Your task to perform on an android device: stop showing notifications on the lock screen Image 0: 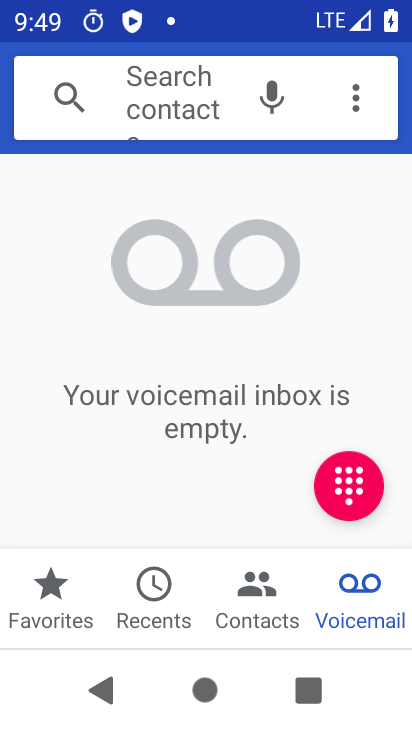
Step 0: press home button
Your task to perform on an android device: stop showing notifications on the lock screen Image 1: 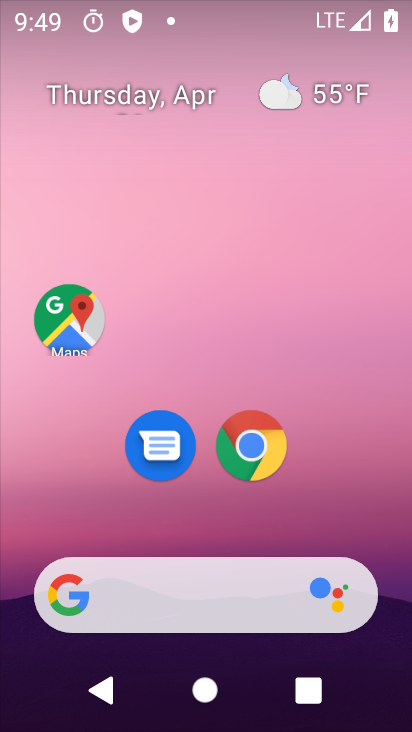
Step 1: drag from (380, 536) to (373, 35)
Your task to perform on an android device: stop showing notifications on the lock screen Image 2: 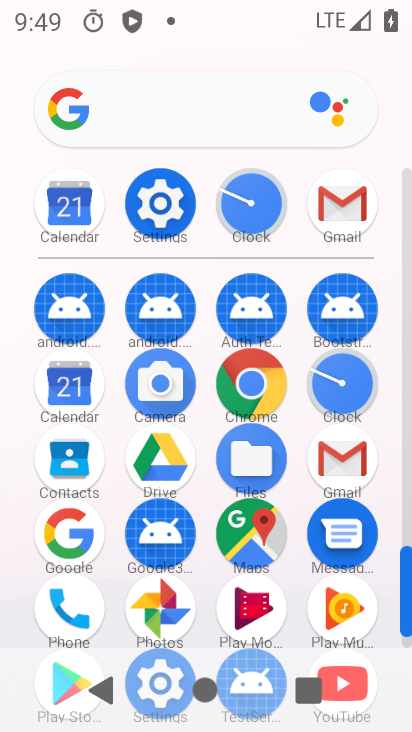
Step 2: click (159, 210)
Your task to perform on an android device: stop showing notifications on the lock screen Image 3: 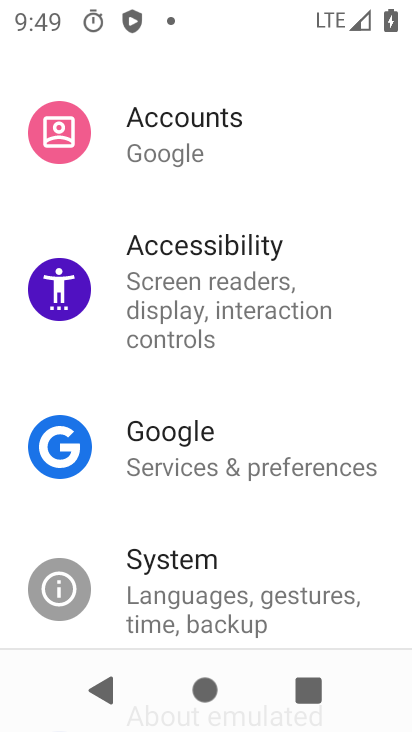
Step 3: drag from (334, 171) to (357, 554)
Your task to perform on an android device: stop showing notifications on the lock screen Image 4: 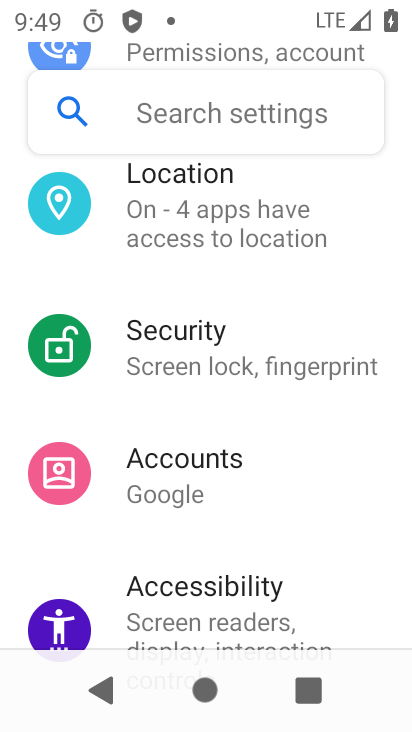
Step 4: drag from (349, 308) to (356, 585)
Your task to perform on an android device: stop showing notifications on the lock screen Image 5: 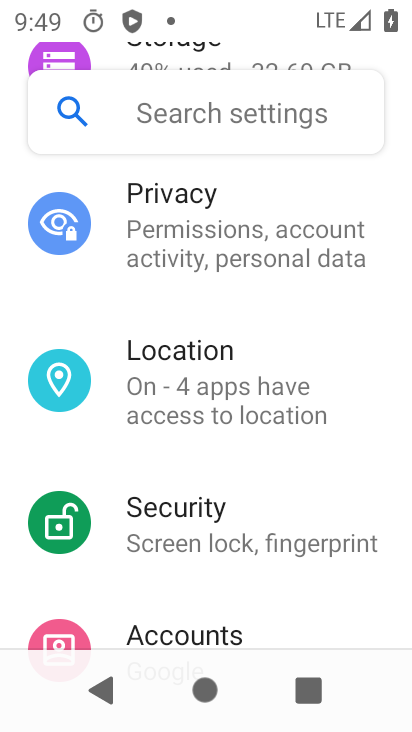
Step 5: drag from (328, 297) to (329, 567)
Your task to perform on an android device: stop showing notifications on the lock screen Image 6: 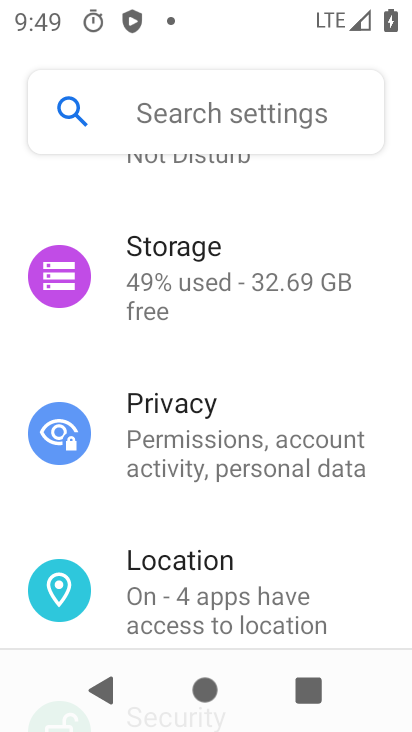
Step 6: drag from (292, 357) to (306, 571)
Your task to perform on an android device: stop showing notifications on the lock screen Image 7: 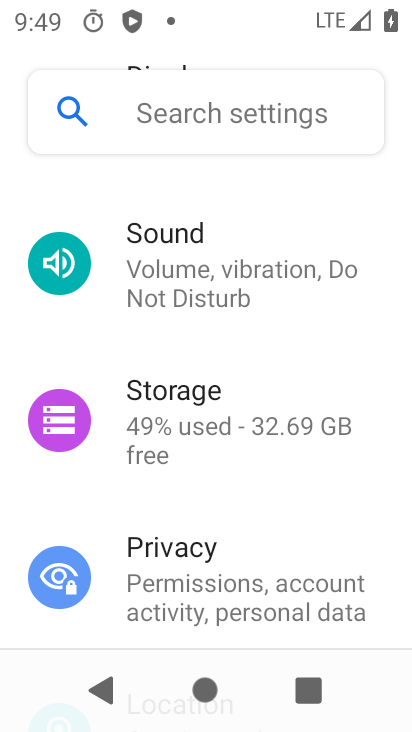
Step 7: drag from (323, 349) to (328, 568)
Your task to perform on an android device: stop showing notifications on the lock screen Image 8: 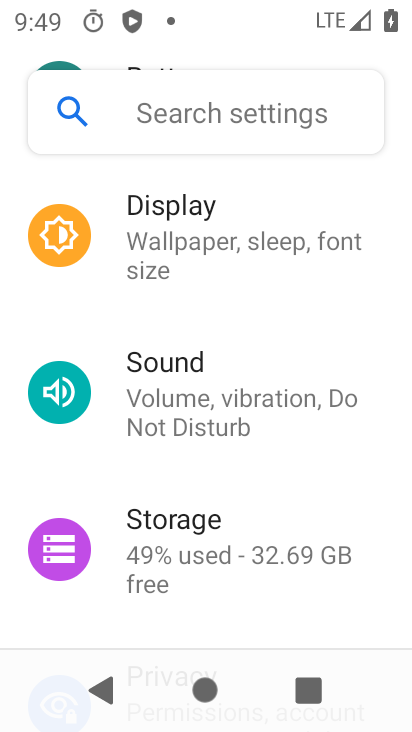
Step 8: drag from (297, 302) to (303, 573)
Your task to perform on an android device: stop showing notifications on the lock screen Image 9: 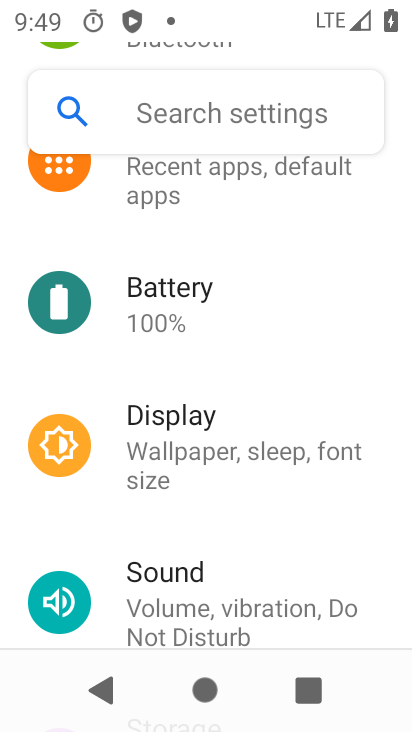
Step 9: drag from (295, 286) to (305, 582)
Your task to perform on an android device: stop showing notifications on the lock screen Image 10: 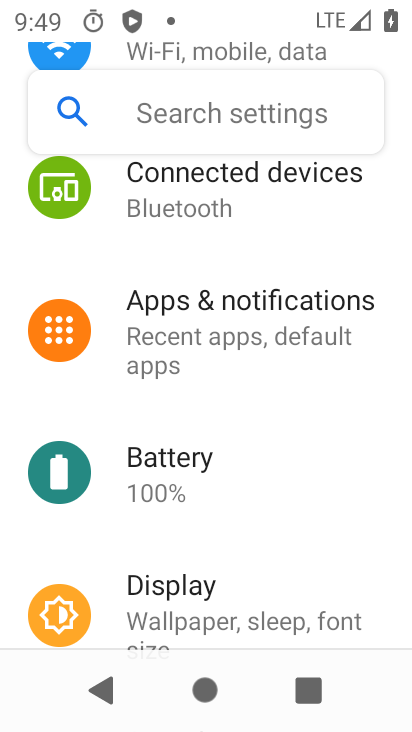
Step 10: click (232, 335)
Your task to perform on an android device: stop showing notifications on the lock screen Image 11: 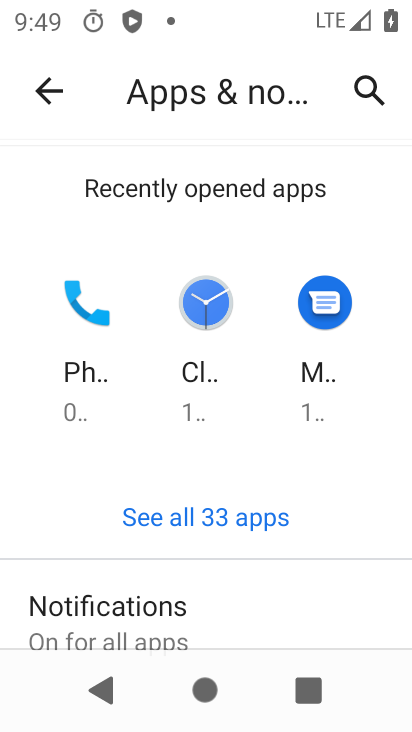
Step 11: drag from (308, 590) to (319, 285)
Your task to perform on an android device: stop showing notifications on the lock screen Image 12: 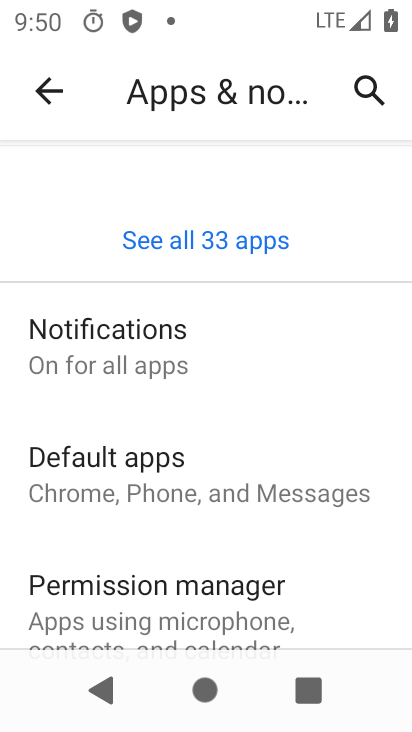
Step 12: click (100, 355)
Your task to perform on an android device: stop showing notifications on the lock screen Image 13: 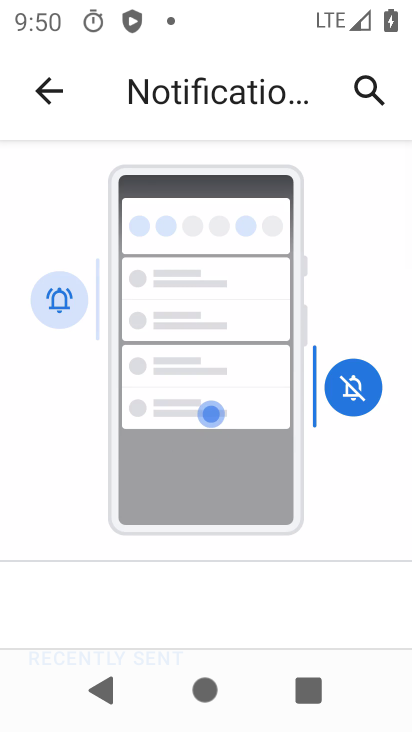
Step 13: drag from (314, 594) to (310, 174)
Your task to perform on an android device: stop showing notifications on the lock screen Image 14: 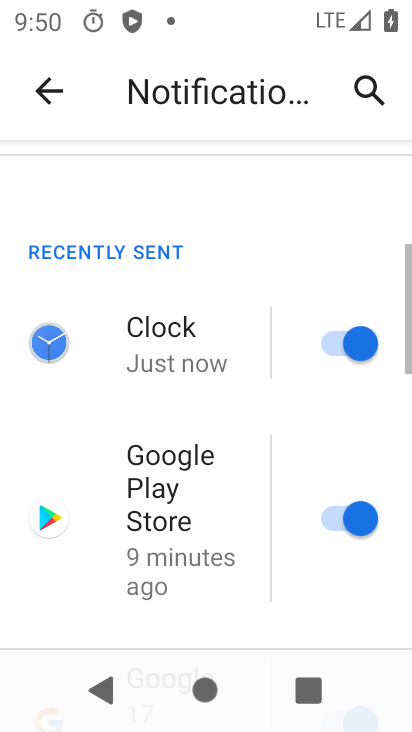
Step 14: drag from (286, 495) to (281, 155)
Your task to perform on an android device: stop showing notifications on the lock screen Image 15: 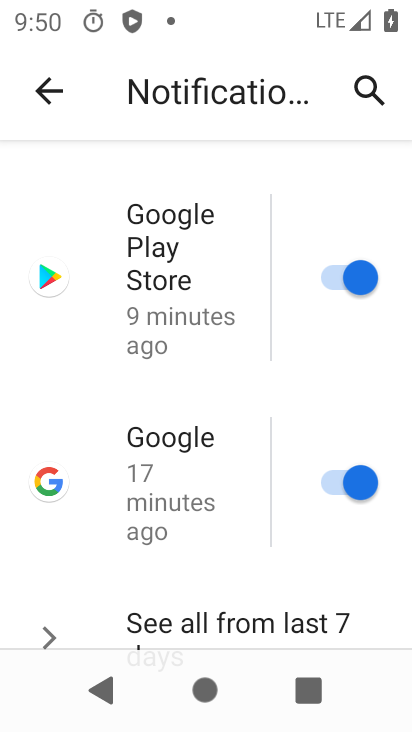
Step 15: drag from (256, 480) to (255, 162)
Your task to perform on an android device: stop showing notifications on the lock screen Image 16: 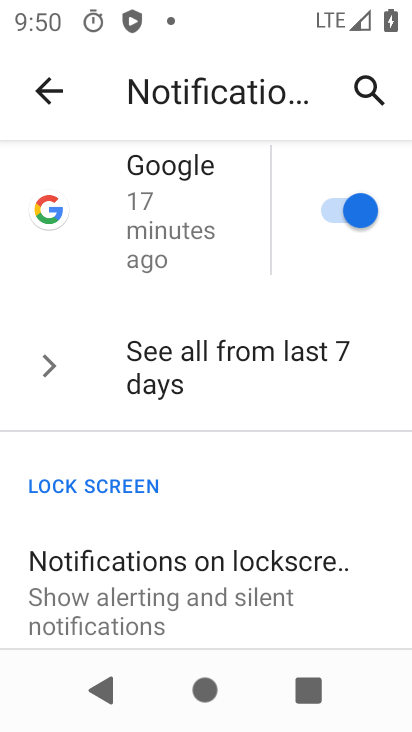
Step 16: drag from (217, 492) to (220, 255)
Your task to perform on an android device: stop showing notifications on the lock screen Image 17: 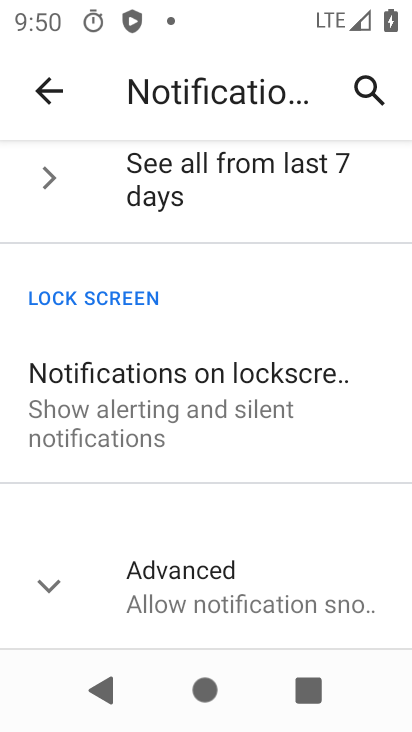
Step 17: click (124, 416)
Your task to perform on an android device: stop showing notifications on the lock screen Image 18: 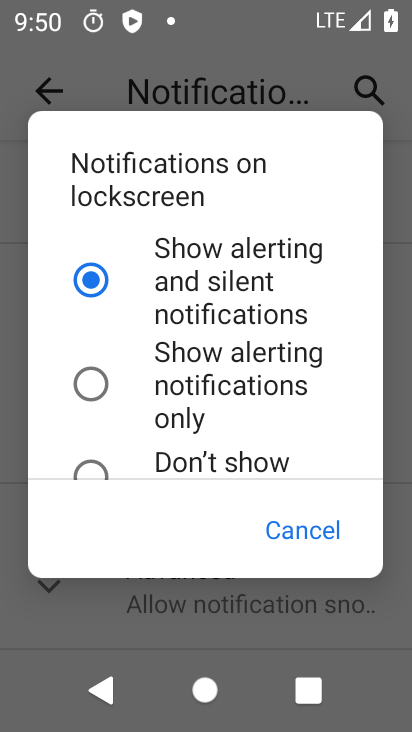
Step 18: click (92, 471)
Your task to perform on an android device: stop showing notifications on the lock screen Image 19: 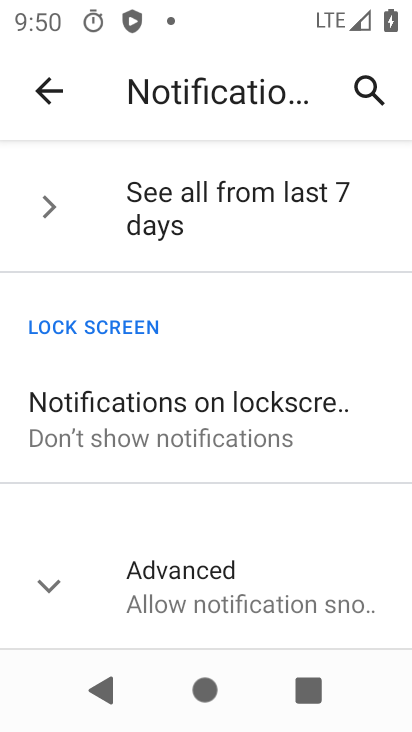
Step 19: task complete